Your task to perform on an android device: Open my contact list Image 0: 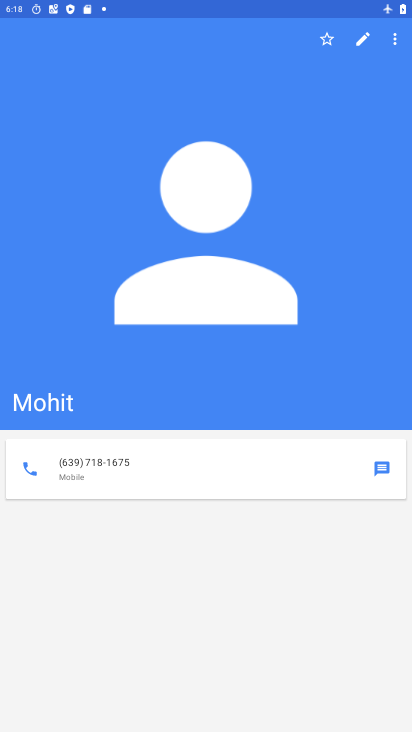
Step 0: press home button
Your task to perform on an android device: Open my contact list Image 1: 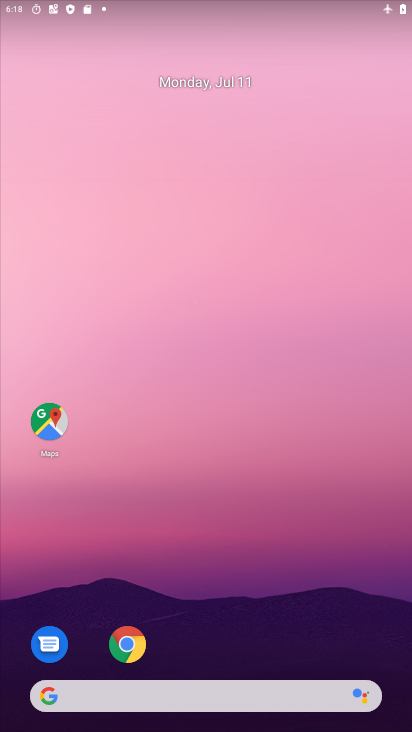
Step 1: drag from (295, 704) to (315, 72)
Your task to perform on an android device: Open my contact list Image 2: 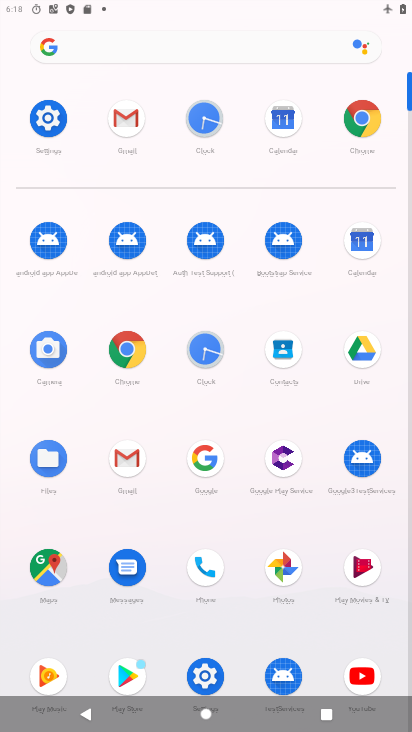
Step 2: click (293, 359)
Your task to perform on an android device: Open my contact list Image 3: 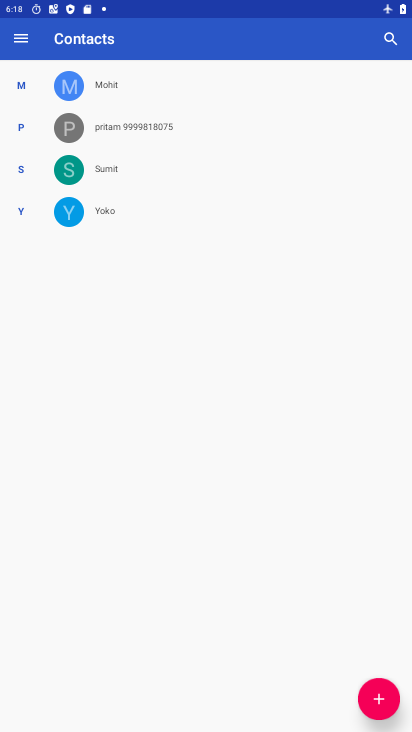
Step 3: click (379, 696)
Your task to perform on an android device: Open my contact list Image 4: 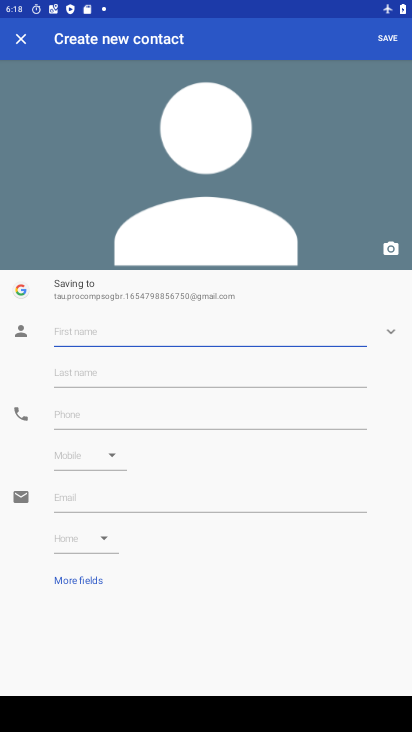
Step 4: type "mani"
Your task to perform on an android device: Open my contact list Image 5: 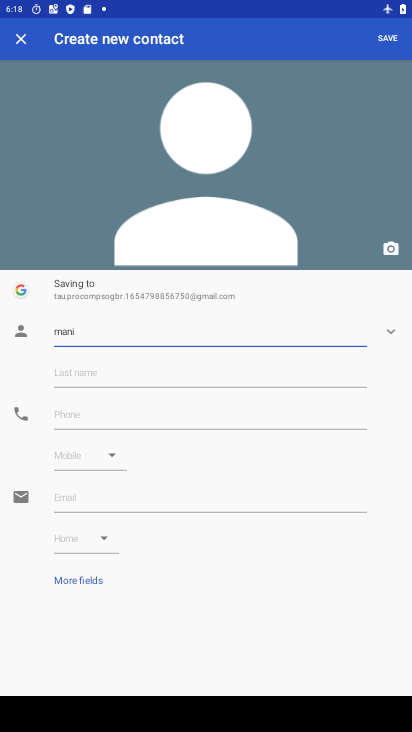
Step 5: click (191, 425)
Your task to perform on an android device: Open my contact list Image 6: 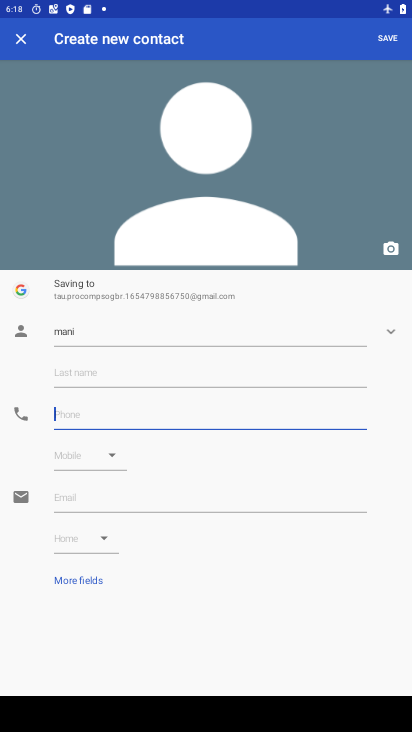
Step 6: type "8997645645"
Your task to perform on an android device: Open my contact list Image 7: 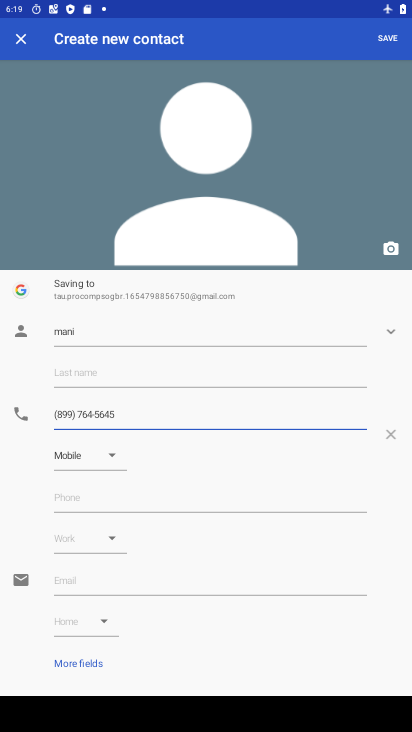
Step 7: click (390, 36)
Your task to perform on an android device: Open my contact list Image 8: 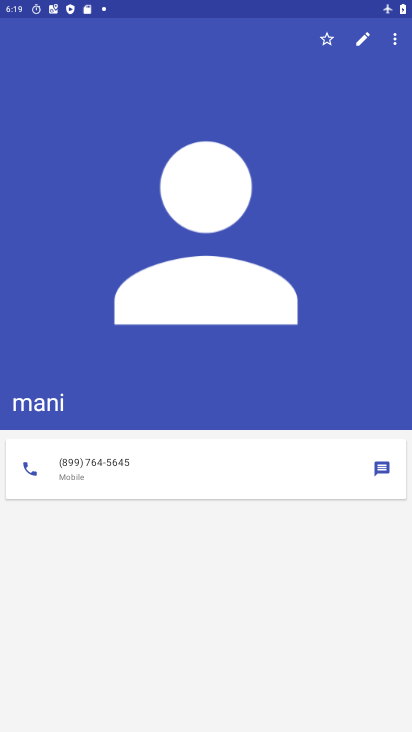
Step 8: task complete